Your task to perform on an android device: change the clock display to analog Image 0: 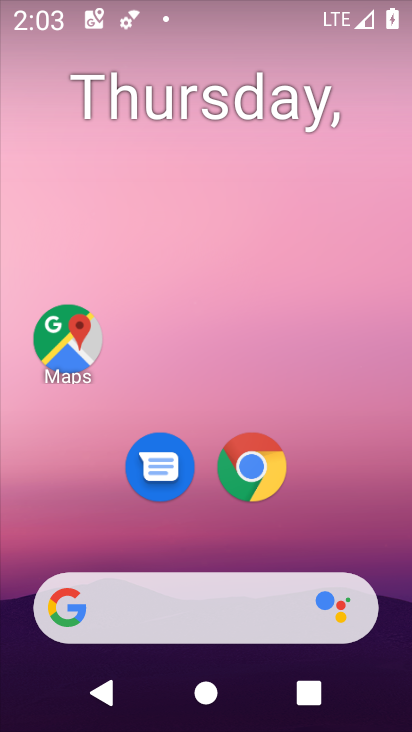
Step 0: drag from (231, 546) to (188, 0)
Your task to perform on an android device: change the clock display to analog Image 1: 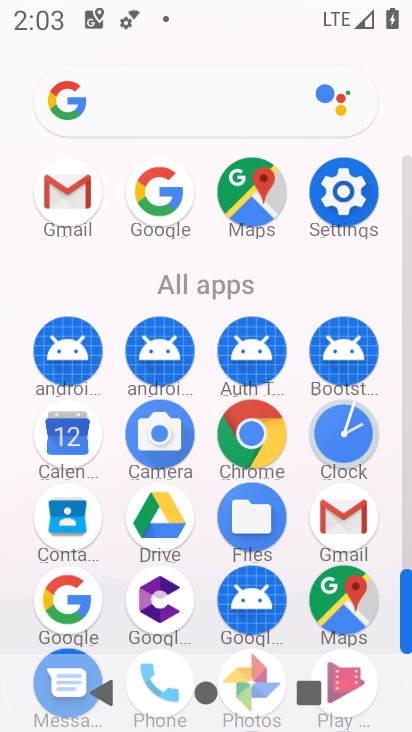
Step 1: click (338, 421)
Your task to perform on an android device: change the clock display to analog Image 2: 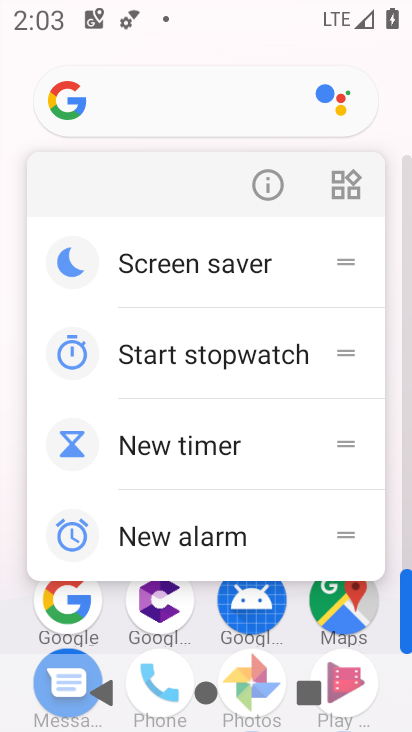
Step 2: click (408, 450)
Your task to perform on an android device: change the clock display to analog Image 3: 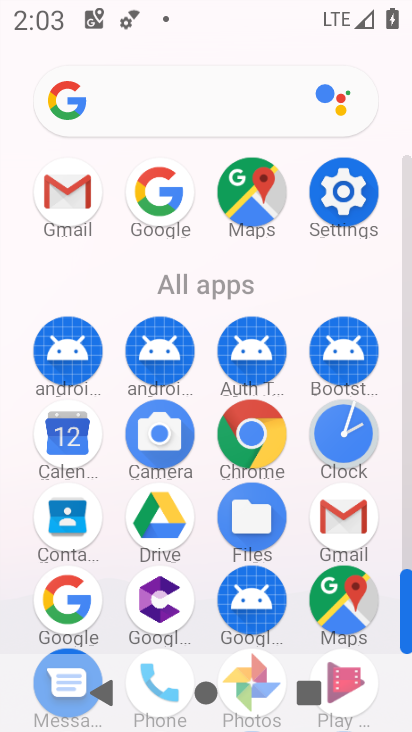
Step 3: click (357, 435)
Your task to perform on an android device: change the clock display to analog Image 4: 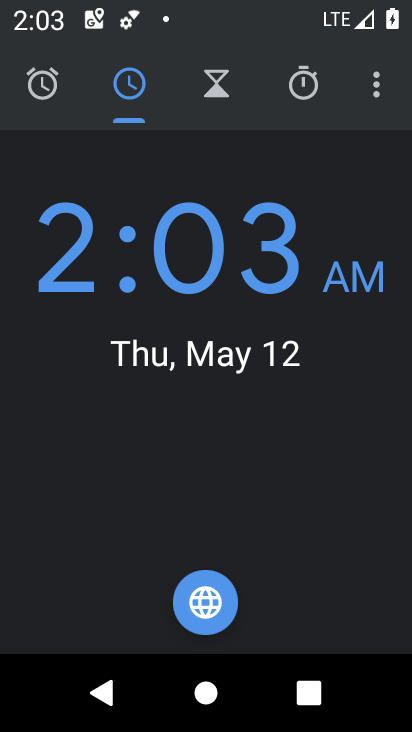
Step 4: click (359, 81)
Your task to perform on an android device: change the clock display to analog Image 5: 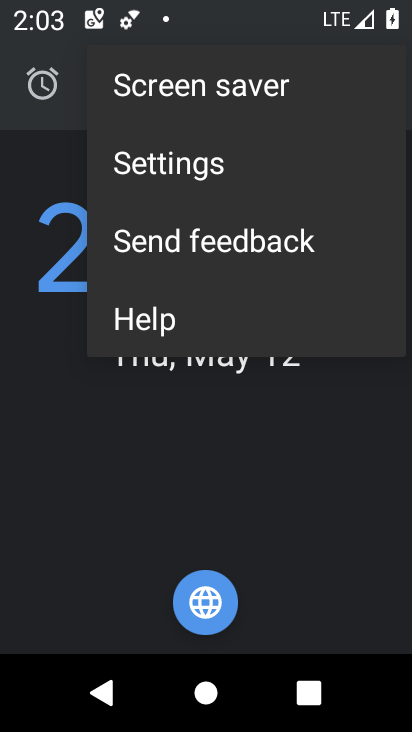
Step 5: click (227, 152)
Your task to perform on an android device: change the clock display to analog Image 6: 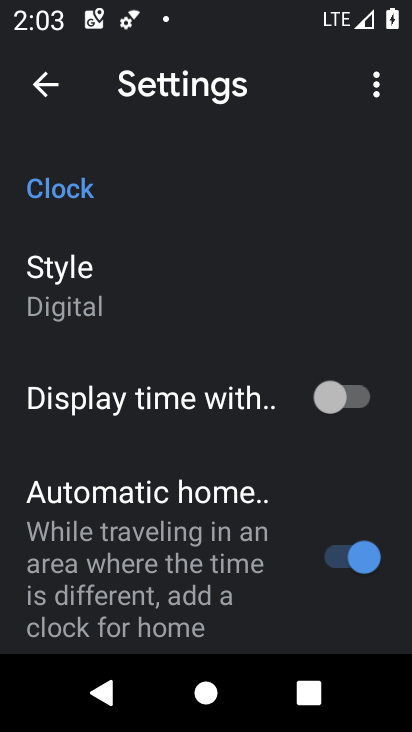
Step 6: click (127, 275)
Your task to perform on an android device: change the clock display to analog Image 7: 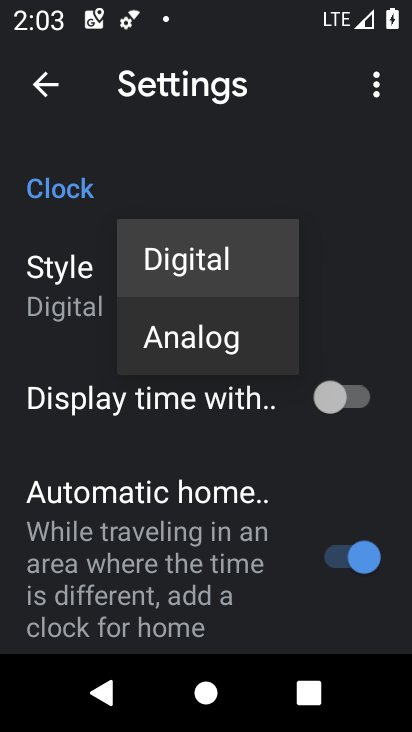
Step 7: click (185, 326)
Your task to perform on an android device: change the clock display to analog Image 8: 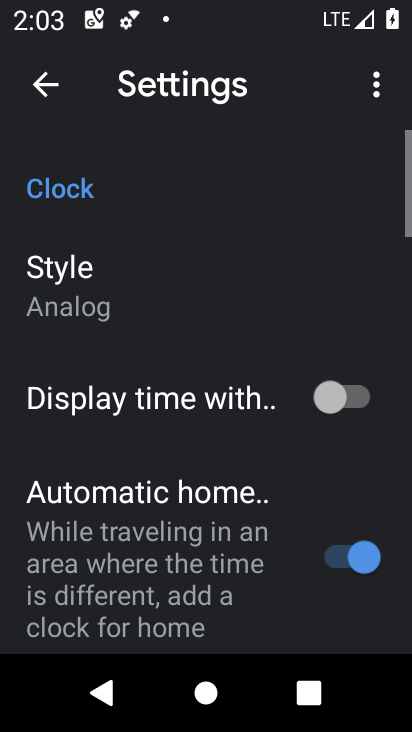
Step 8: task complete